Your task to perform on an android device: Open the Play Movies app and select the watchlist tab. Image 0: 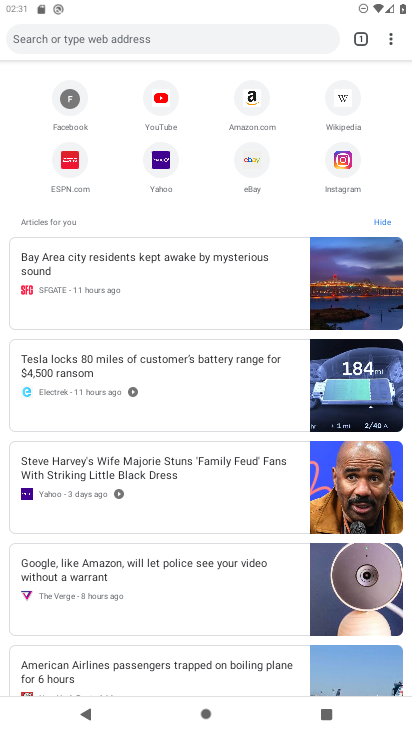
Step 0: press home button
Your task to perform on an android device: Open the Play Movies app and select the watchlist tab. Image 1: 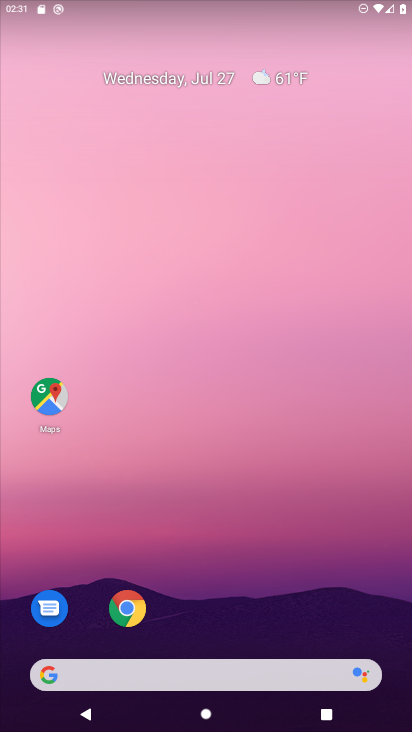
Step 1: drag from (264, 632) to (288, 1)
Your task to perform on an android device: Open the Play Movies app and select the watchlist tab. Image 2: 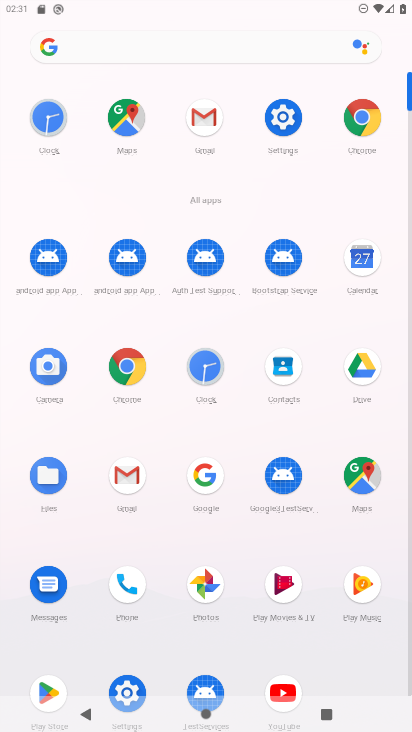
Step 2: click (283, 588)
Your task to perform on an android device: Open the Play Movies app and select the watchlist tab. Image 3: 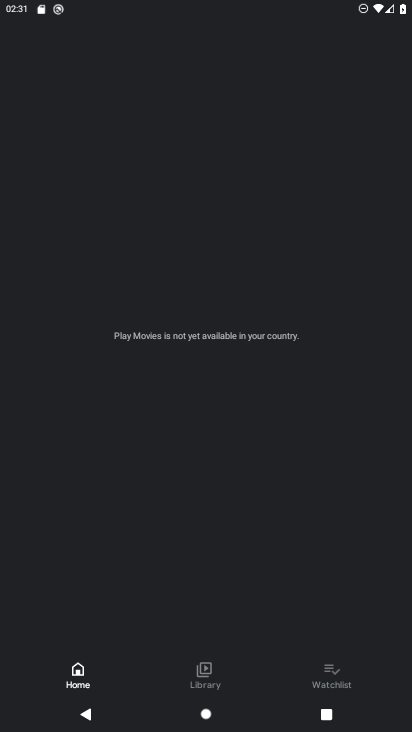
Step 3: click (333, 663)
Your task to perform on an android device: Open the Play Movies app and select the watchlist tab. Image 4: 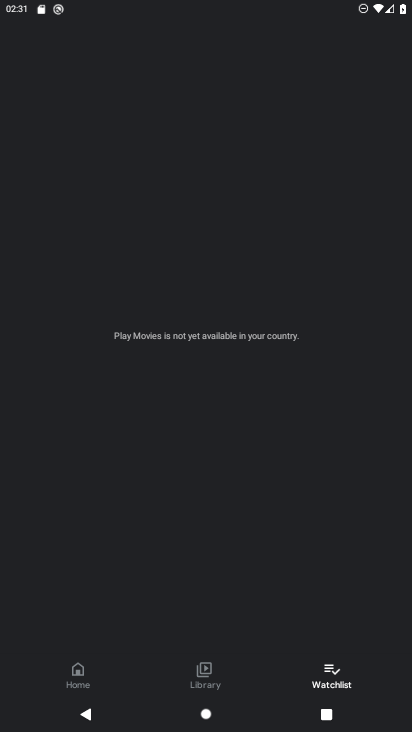
Step 4: task complete